Your task to perform on an android device: delete a single message in the gmail app Image 0: 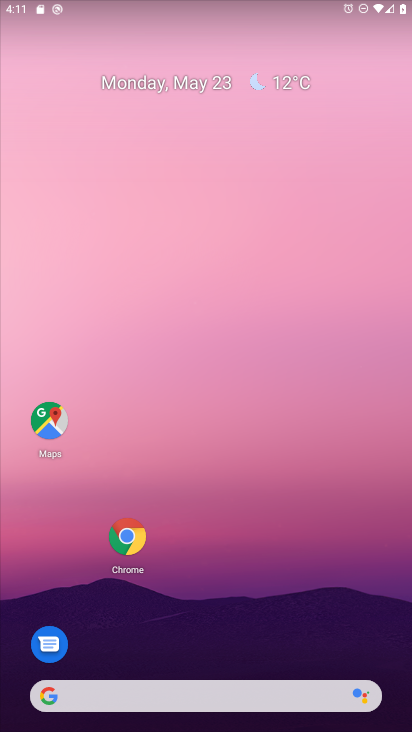
Step 0: drag from (229, 556) to (260, 125)
Your task to perform on an android device: delete a single message in the gmail app Image 1: 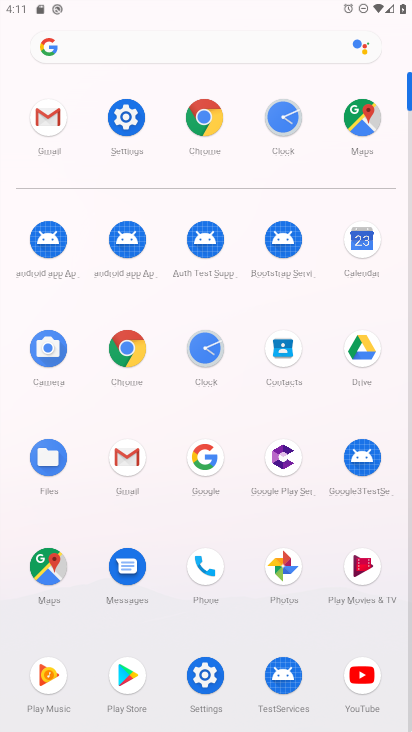
Step 1: click (120, 452)
Your task to perform on an android device: delete a single message in the gmail app Image 2: 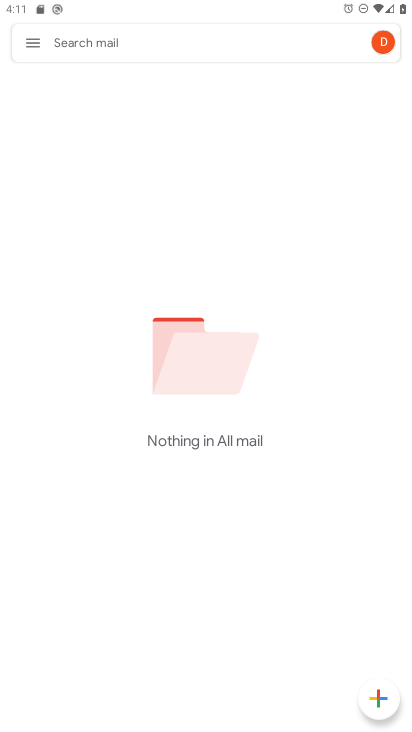
Step 2: task complete